Your task to perform on an android device: change alarm snooze length Image 0: 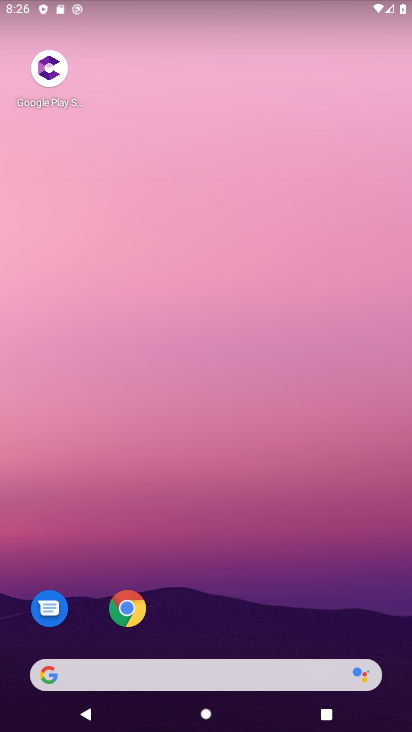
Step 0: drag from (246, 643) to (336, 114)
Your task to perform on an android device: change alarm snooze length Image 1: 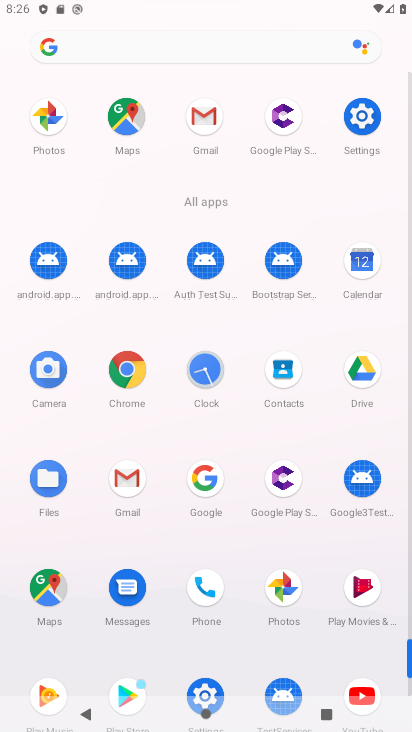
Step 1: click (212, 361)
Your task to perform on an android device: change alarm snooze length Image 2: 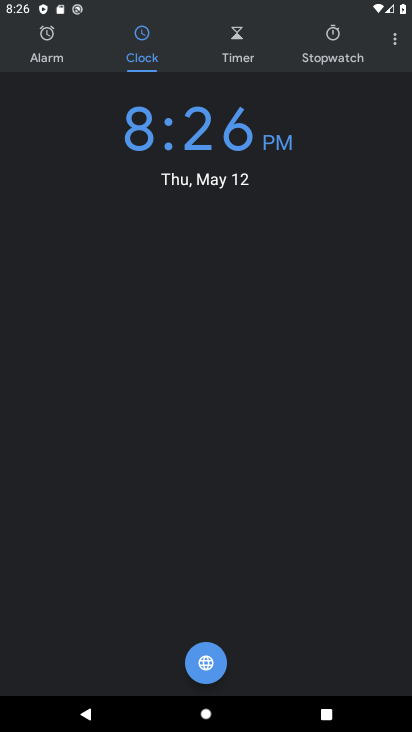
Step 2: click (393, 30)
Your task to perform on an android device: change alarm snooze length Image 3: 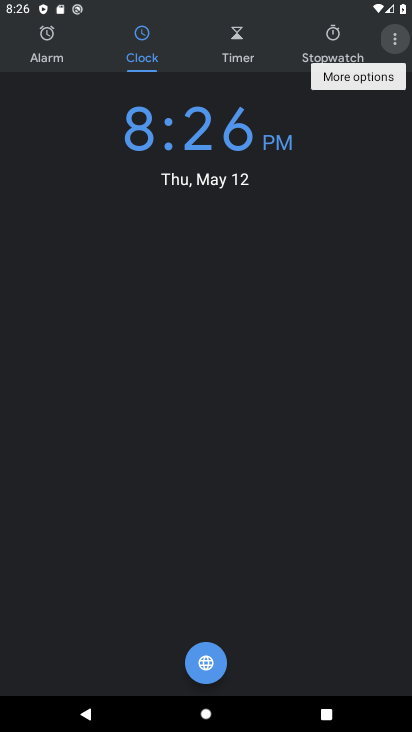
Step 3: click (402, 46)
Your task to perform on an android device: change alarm snooze length Image 4: 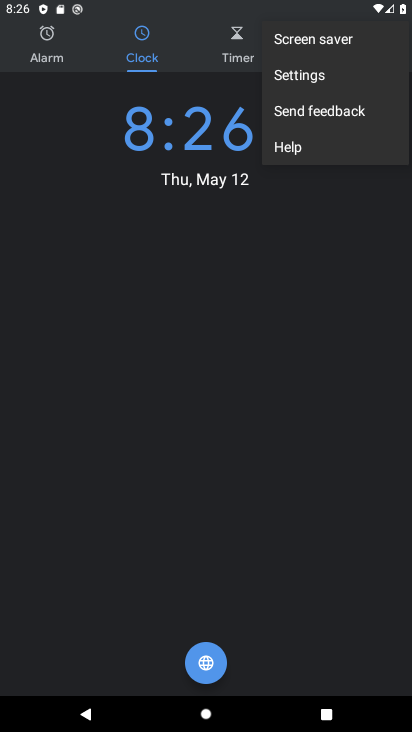
Step 4: click (351, 66)
Your task to perform on an android device: change alarm snooze length Image 5: 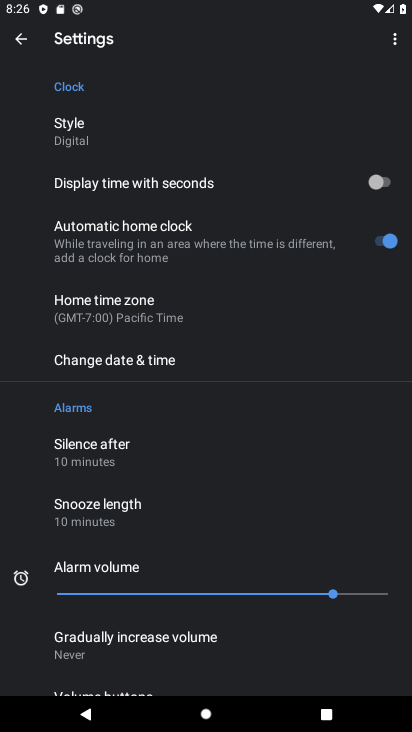
Step 5: click (180, 537)
Your task to perform on an android device: change alarm snooze length Image 6: 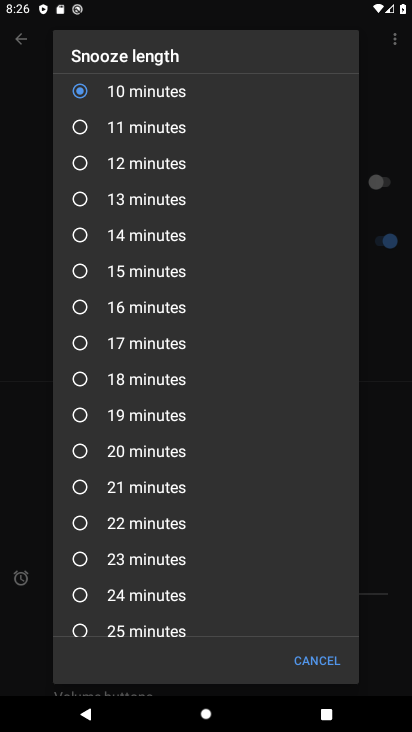
Step 6: click (111, 284)
Your task to perform on an android device: change alarm snooze length Image 7: 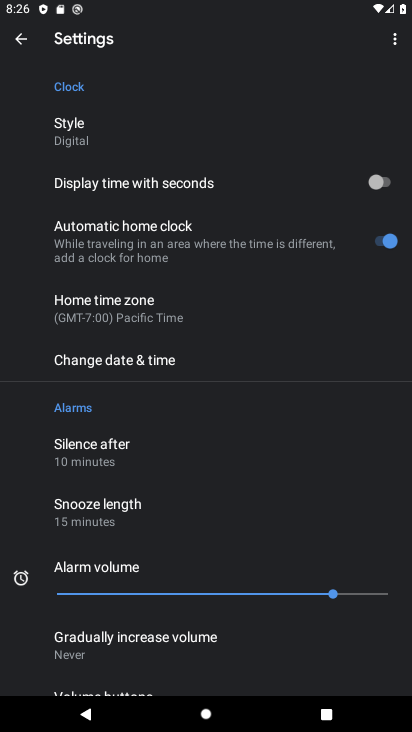
Step 7: task complete